Your task to perform on an android device: turn on location history Image 0: 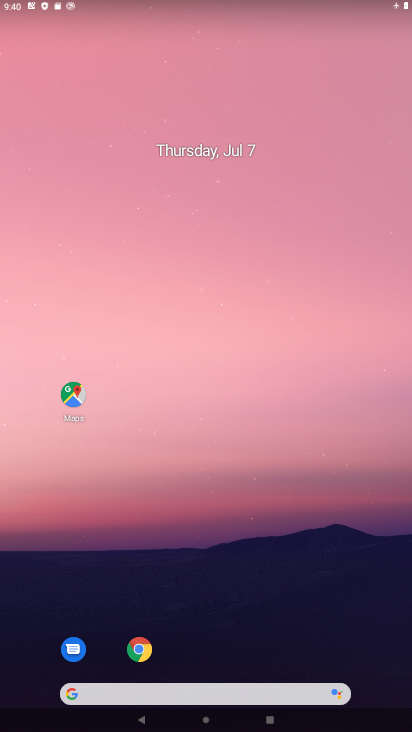
Step 0: drag from (236, 729) to (236, 127)
Your task to perform on an android device: turn on location history Image 1: 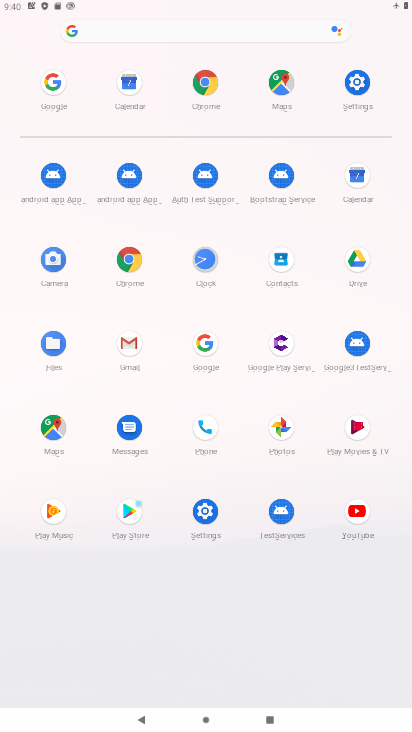
Step 1: click (357, 84)
Your task to perform on an android device: turn on location history Image 2: 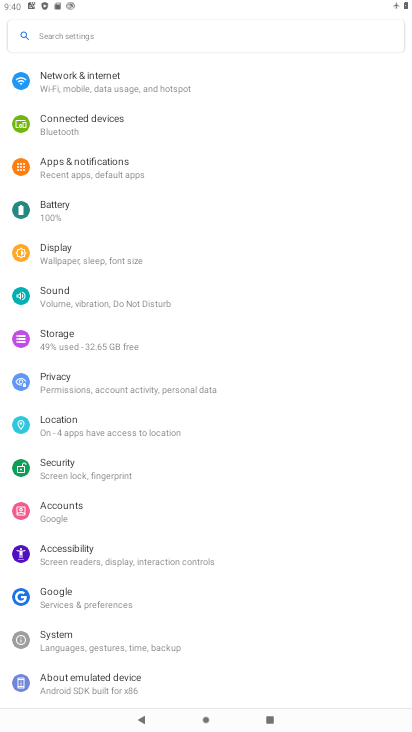
Step 2: click (59, 423)
Your task to perform on an android device: turn on location history Image 3: 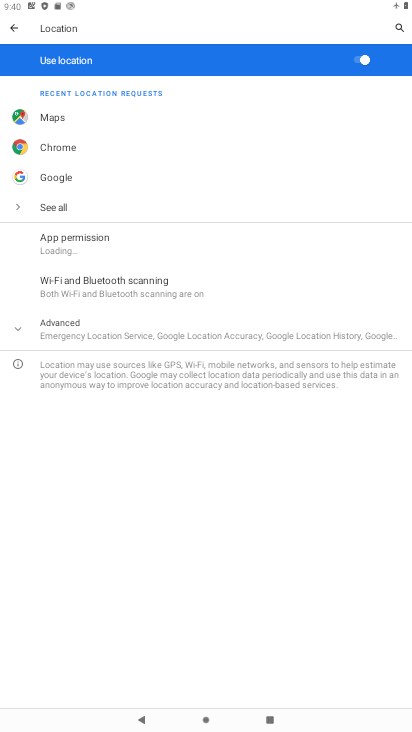
Step 3: click (143, 324)
Your task to perform on an android device: turn on location history Image 4: 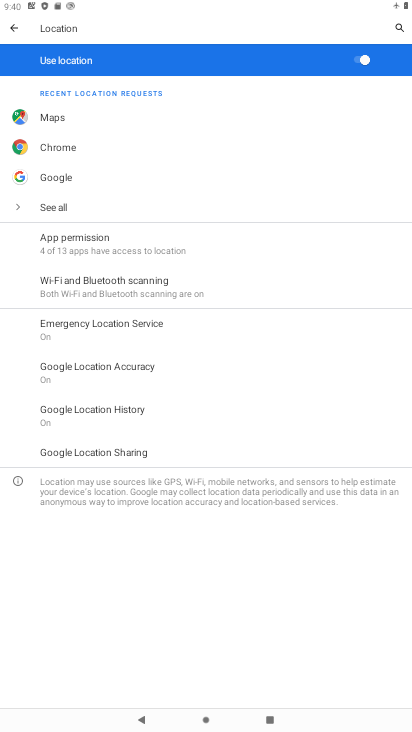
Step 4: click (115, 407)
Your task to perform on an android device: turn on location history Image 5: 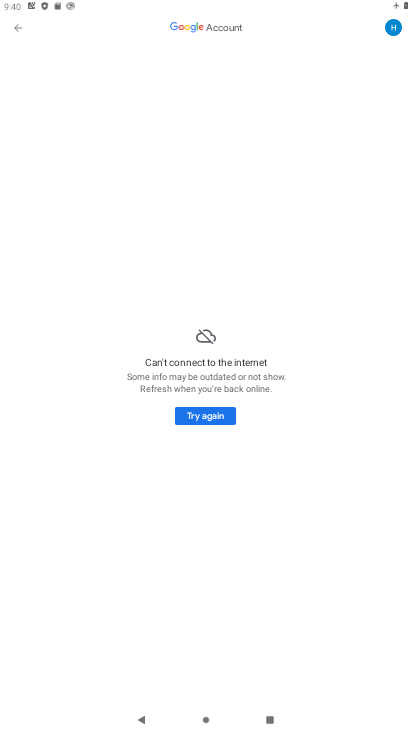
Step 5: click (194, 413)
Your task to perform on an android device: turn on location history Image 6: 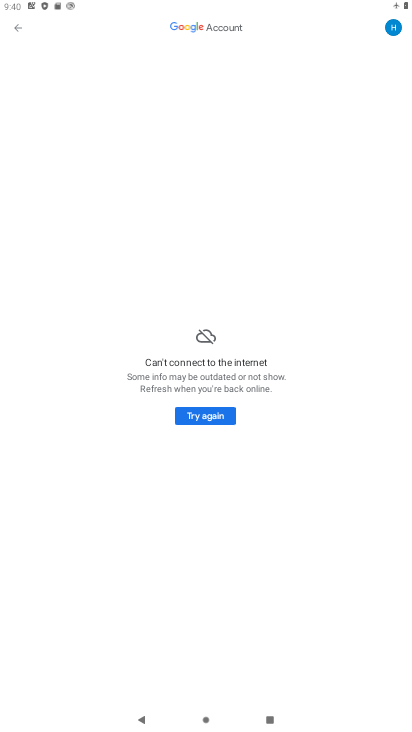
Step 6: task complete